Your task to perform on an android device: Open sound settings Image 0: 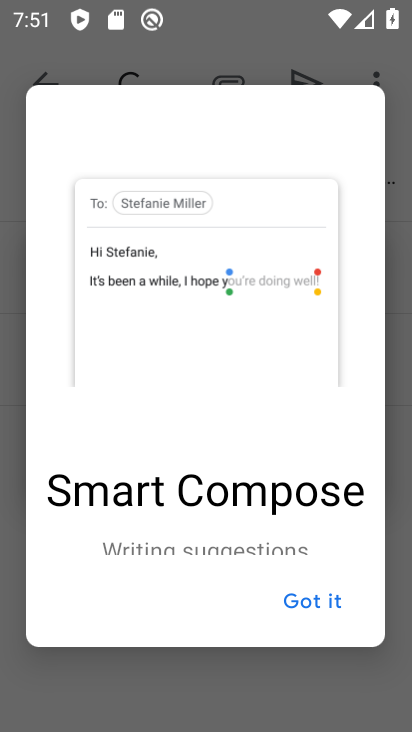
Step 0: press home button
Your task to perform on an android device: Open sound settings Image 1: 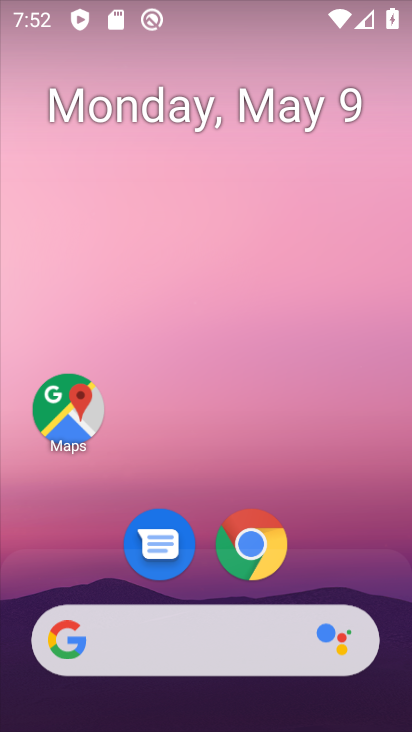
Step 1: drag from (204, 549) to (208, 84)
Your task to perform on an android device: Open sound settings Image 2: 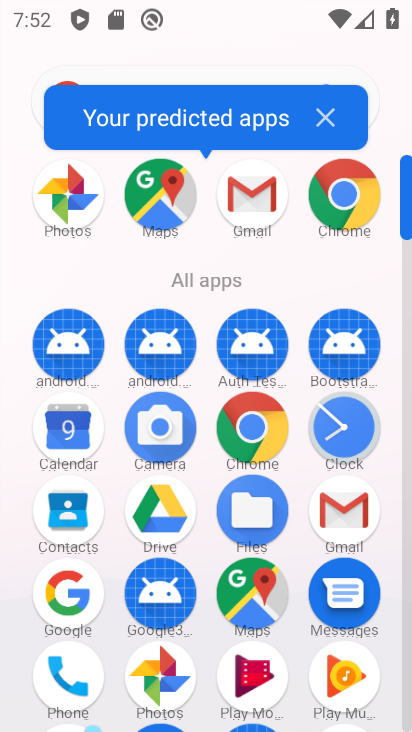
Step 2: drag from (210, 625) to (227, 223)
Your task to perform on an android device: Open sound settings Image 3: 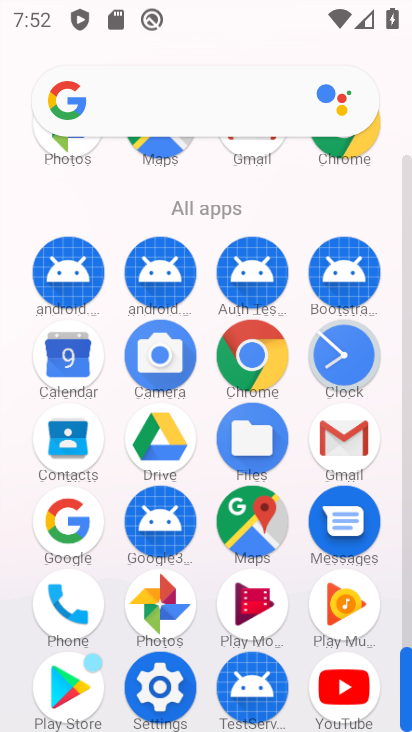
Step 3: click (162, 643)
Your task to perform on an android device: Open sound settings Image 4: 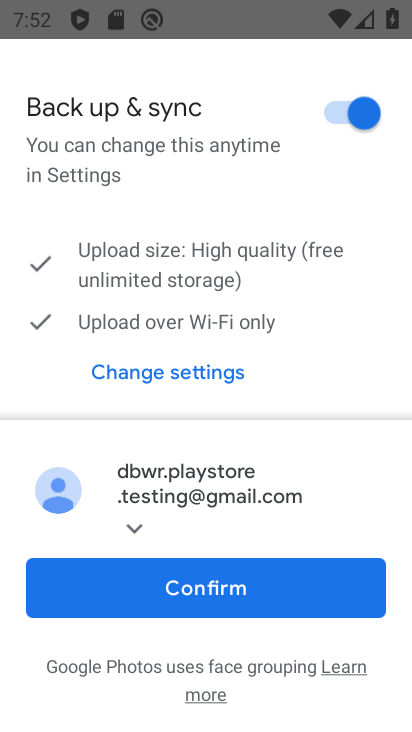
Step 4: click (220, 577)
Your task to perform on an android device: Open sound settings Image 5: 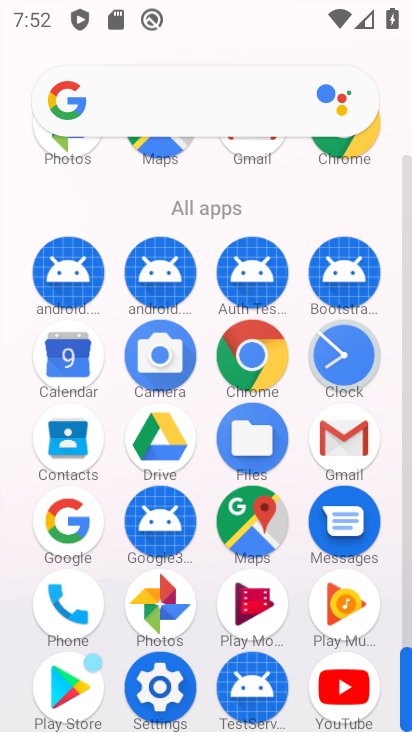
Step 5: click (150, 664)
Your task to perform on an android device: Open sound settings Image 6: 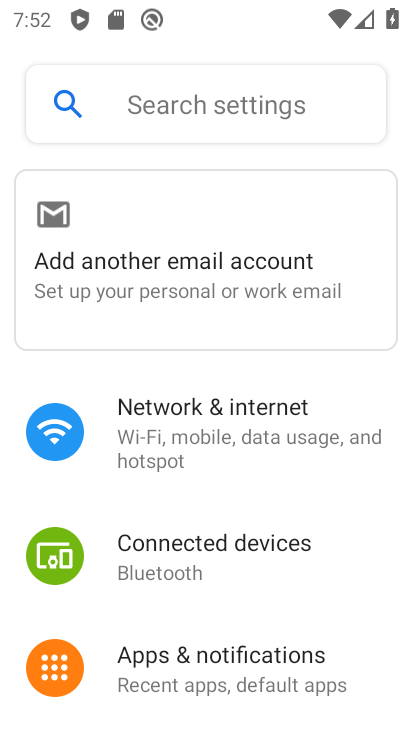
Step 6: drag from (152, 663) to (204, 259)
Your task to perform on an android device: Open sound settings Image 7: 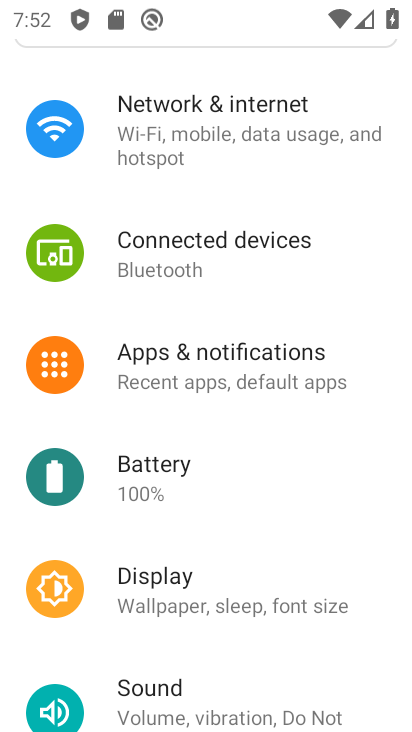
Step 7: click (193, 697)
Your task to perform on an android device: Open sound settings Image 8: 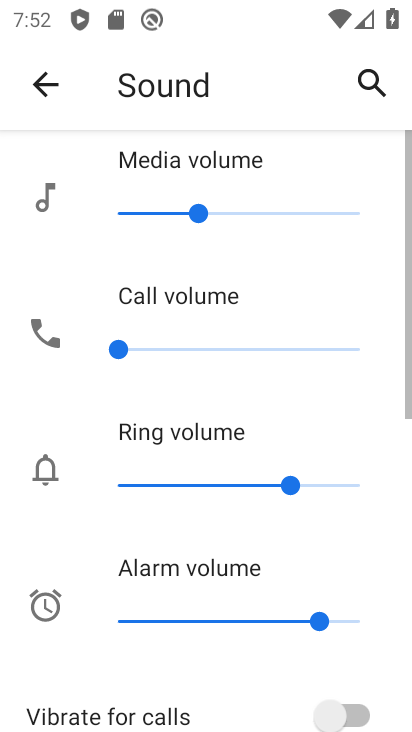
Step 8: task complete